Your task to perform on an android device: check the backup settings in the google photos Image 0: 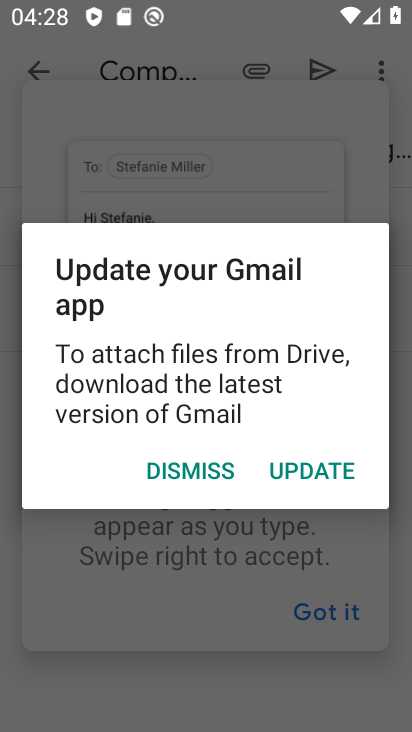
Step 0: press home button
Your task to perform on an android device: check the backup settings in the google photos Image 1: 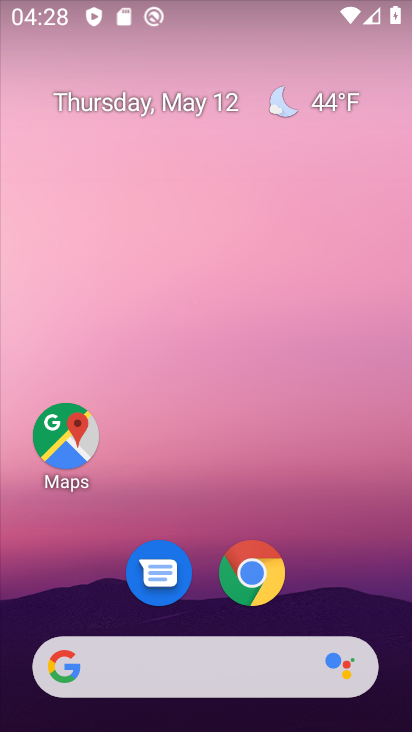
Step 1: drag from (394, 656) to (307, 0)
Your task to perform on an android device: check the backup settings in the google photos Image 2: 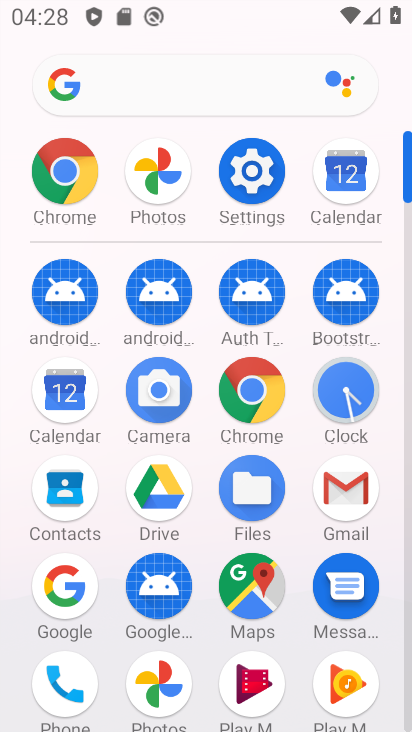
Step 2: click (405, 702)
Your task to perform on an android device: check the backup settings in the google photos Image 3: 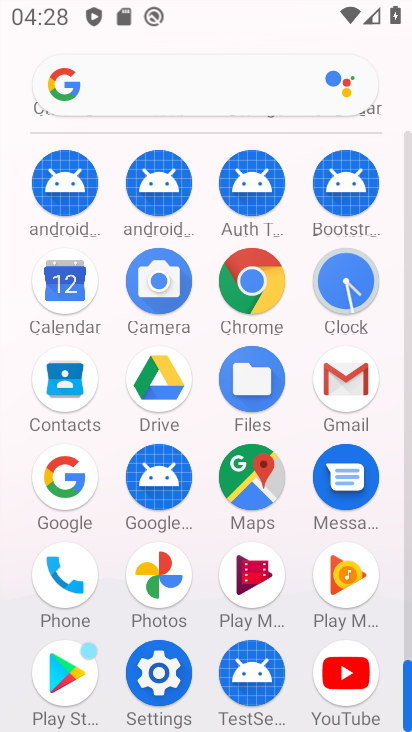
Step 3: click (160, 569)
Your task to perform on an android device: check the backup settings in the google photos Image 4: 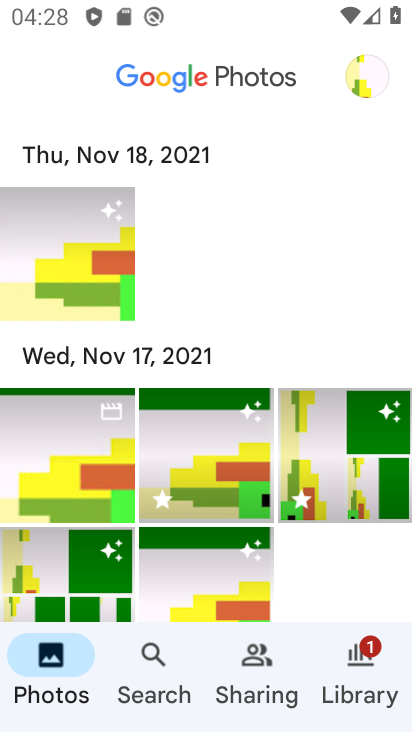
Step 4: click (362, 73)
Your task to perform on an android device: check the backup settings in the google photos Image 5: 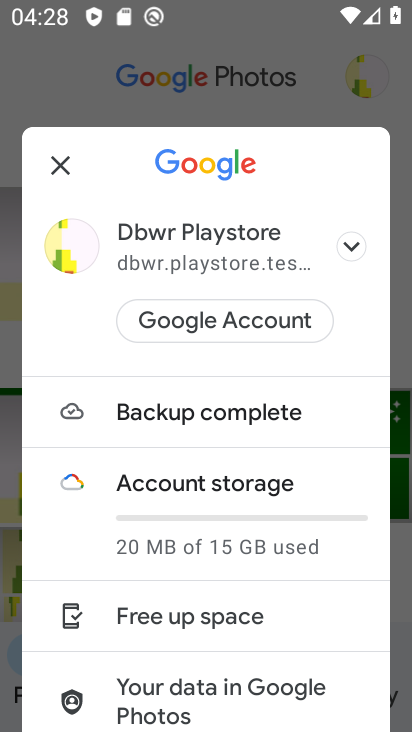
Step 5: drag from (318, 675) to (287, 210)
Your task to perform on an android device: check the backup settings in the google photos Image 6: 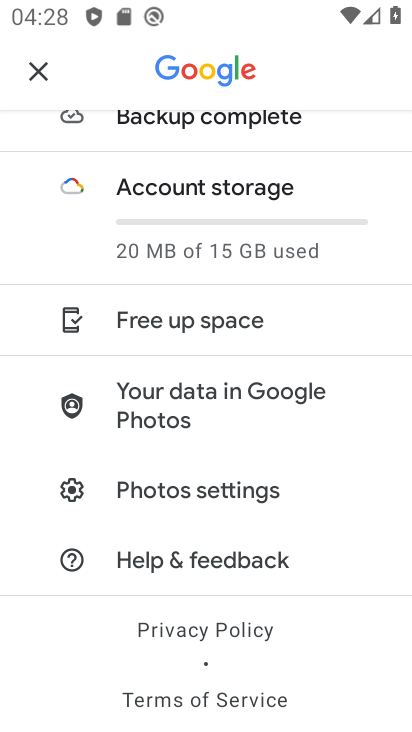
Step 6: click (158, 489)
Your task to perform on an android device: check the backup settings in the google photos Image 7: 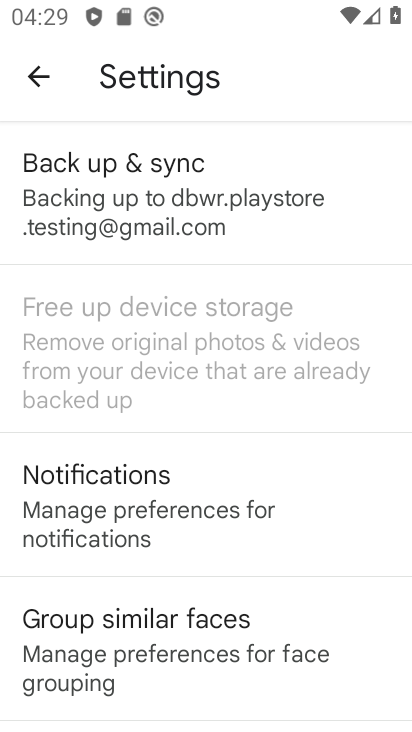
Step 7: click (121, 194)
Your task to perform on an android device: check the backup settings in the google photos Image 8: 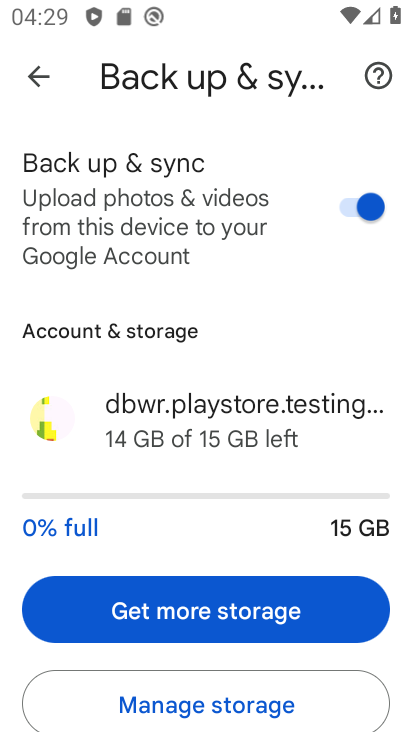
Step 8: task complete